Your task to perform on an android device: Go to notification settings Image 0: 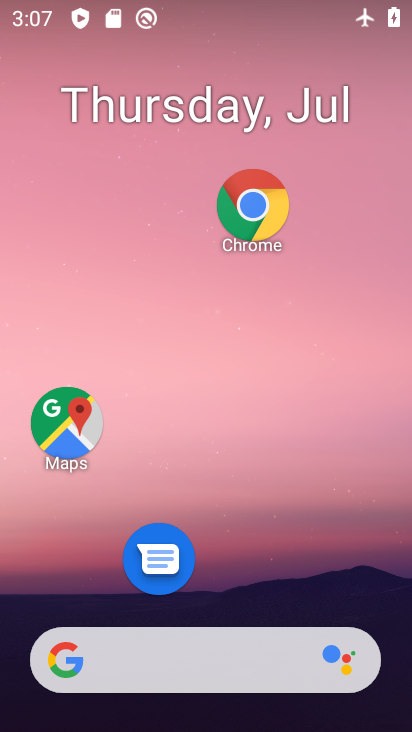
Step 0: drag from (337, 559) to (349, 270)
Your task to perform on an android device: Go to notification settings Image 1: 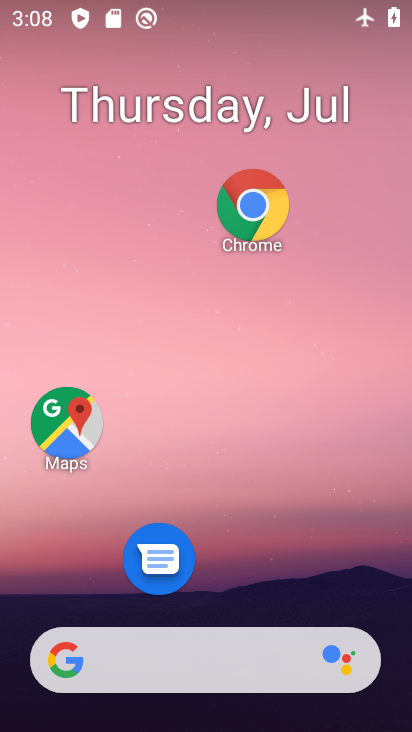
Step 1: drag from (313, 605) to (349, 63)
Your task to perform on an android device: Go to notification settings Image 2: 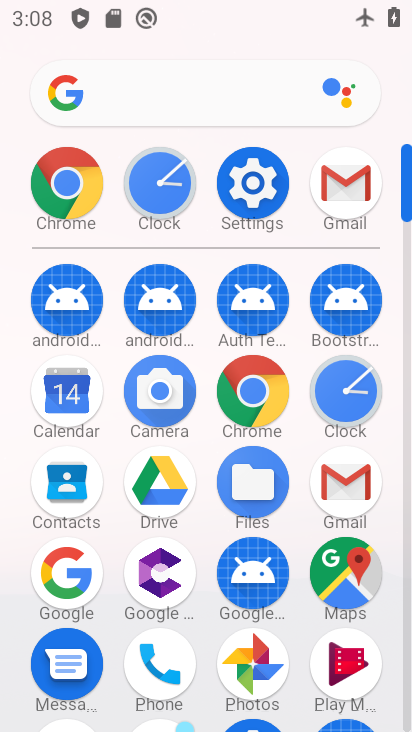
Step 2: click (270, 177)
Your task to perform on an android device: Go to notification settings Image 3: 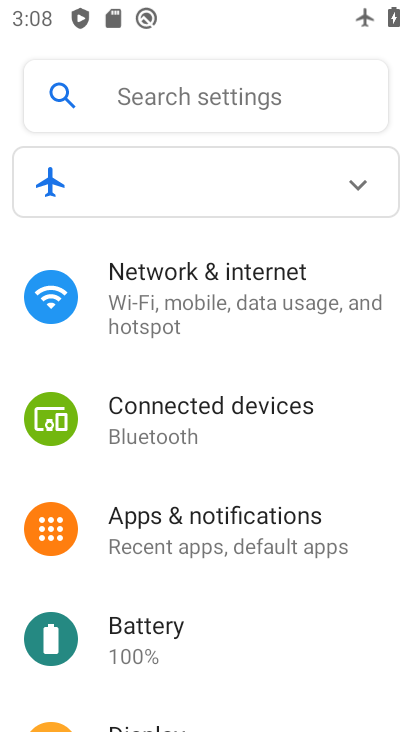
Step 3: click (288, 535)
Your task to perform on an android device: Go to notification settings Image 4: 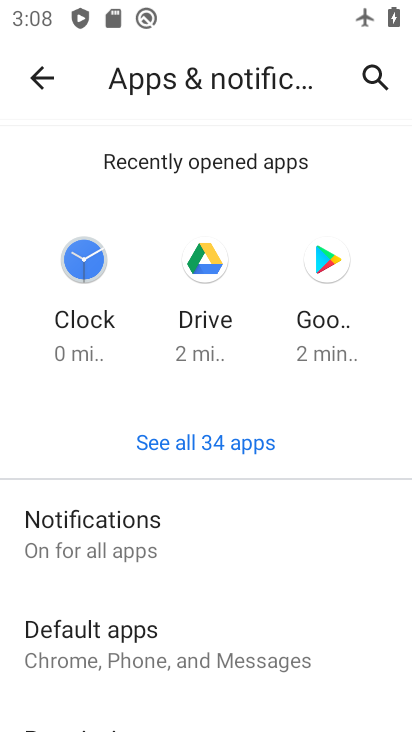
Step 4: click (160, 529)
Your task to perform on an android device: Go to notification settings Image 5: 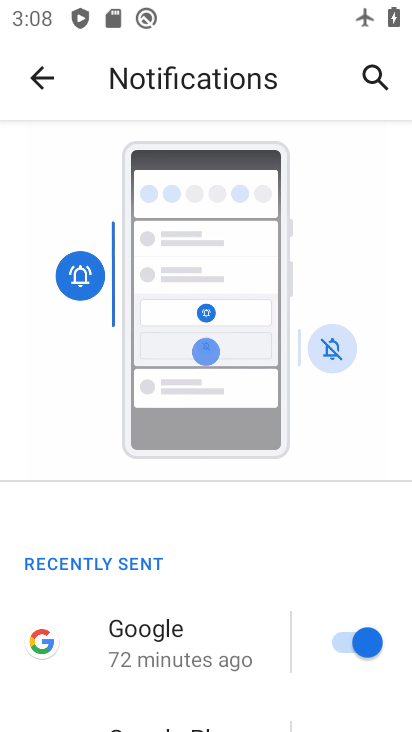
Step 5: task complete